Your task to perform on an android device: turn off airplane mode Image 0: 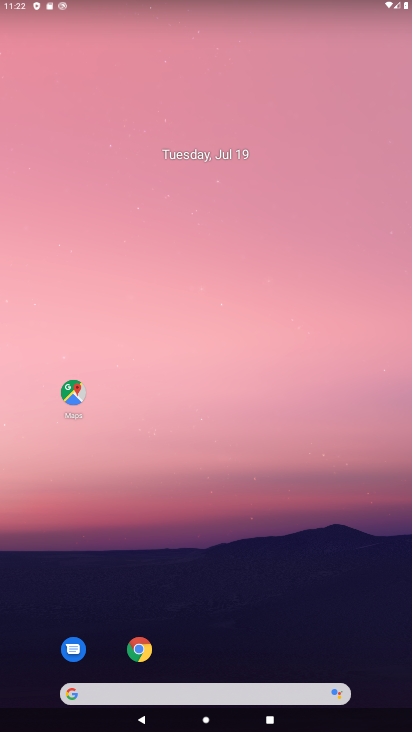
Step 0: drag from (290, 0) to (303, 336)
Your task to perform on an android device: turn off airplane mode Image 1: 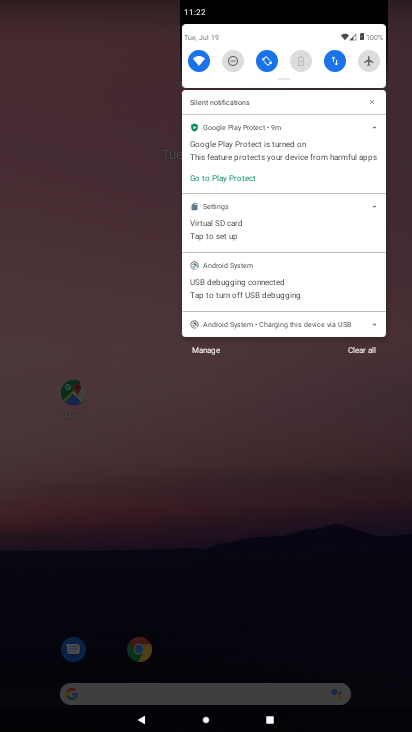
Step 1: click (206, 497)
Your task to perform on an android device: turn off airplane mode Image 2: 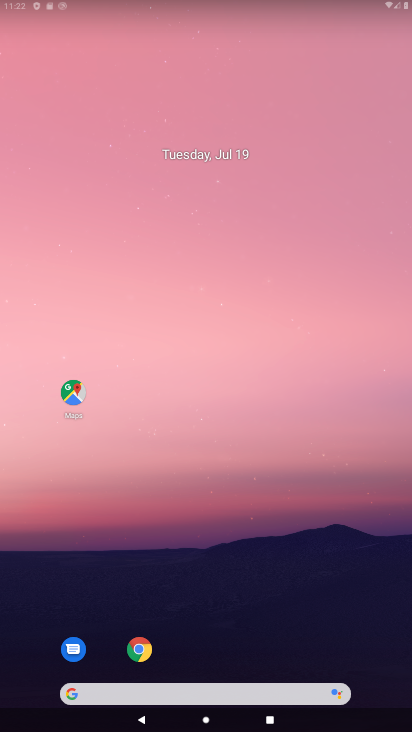
Step 2: task complete